Your task to perform on an android device: turn on improve location accuracy Image 0: 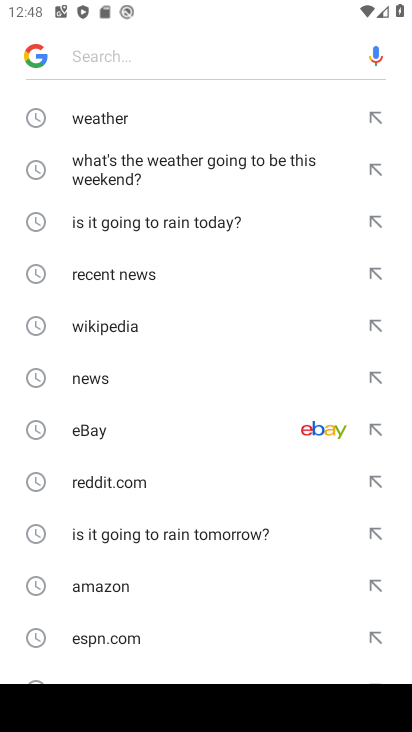
Step 0: press home button
Your task to perform on an android device: turn on improve location accuracy Image 1: 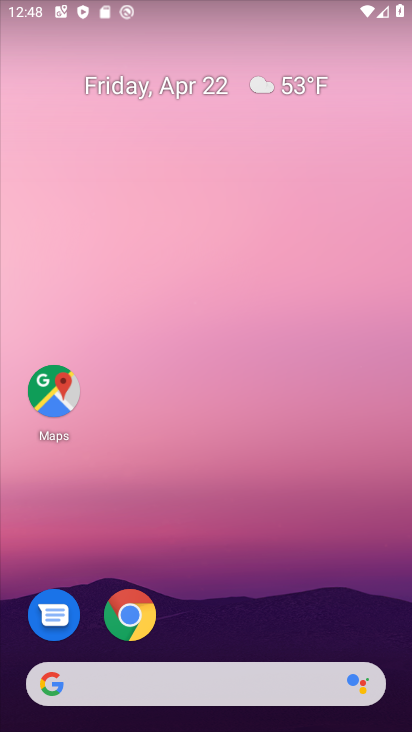
Step 1: drag from (349, 551) to (181, 7)
Your task to perform on an android device: turn on improve location accuracy Image 2: 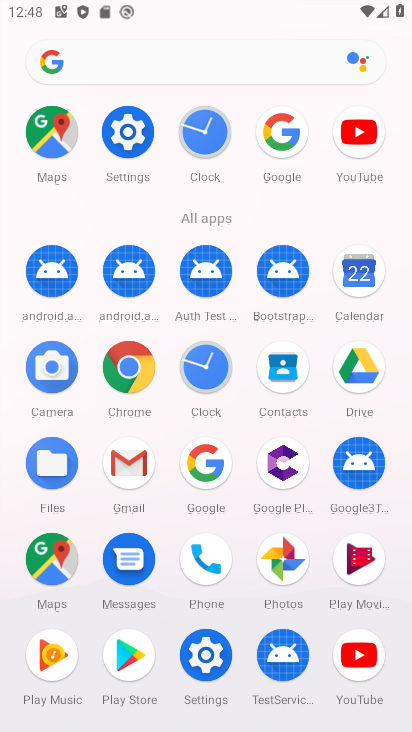
Step 2: click (120, 137)
Your task to perform on an android device: turn on improve location accuracy Image 3: 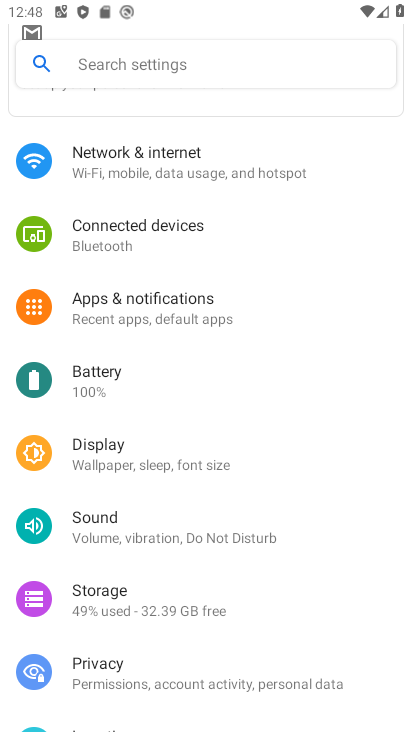
Step 3: drag from (260, 611) to (227, 223)
Your task to perform on an android device: turn on improve location accuracy Image 4: 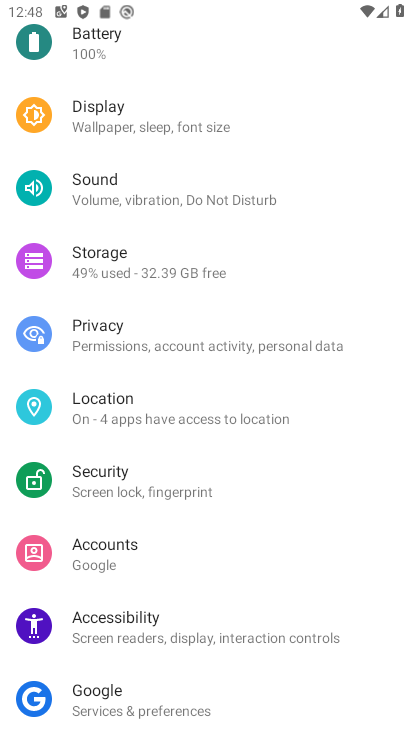
Step 4: click (111, 417)
Your task to perform on an android device: turn on improve location accuracy Image 5: 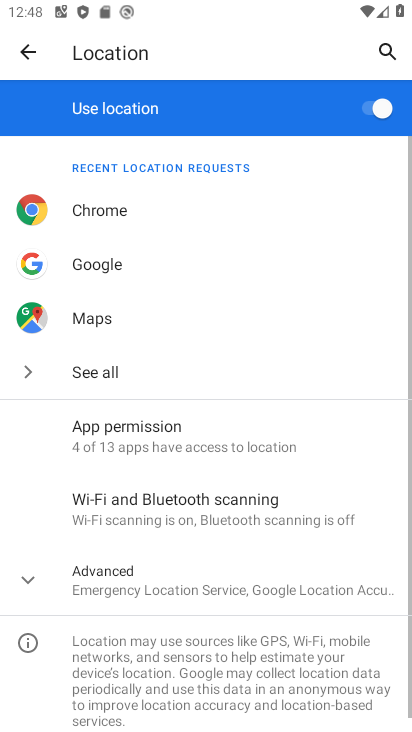
Step 5: click (30, 585)
Your task to perform on an android device: turn on improve location accuracy Image 6: 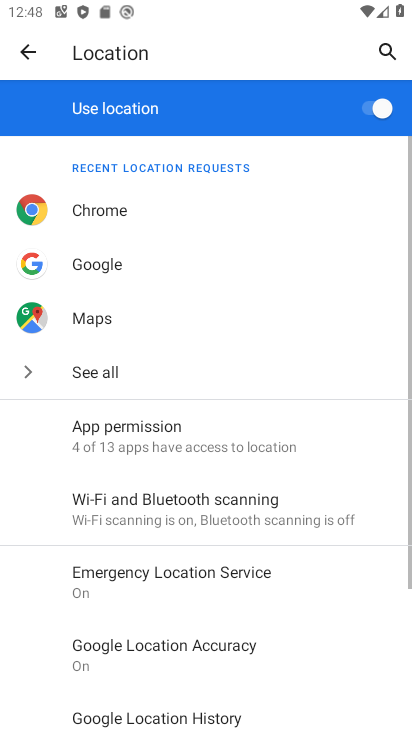
Step 6: drag from (179, 602) to (137, 328)
Your task to perform on an android device: turn on improve location accuracy Image 7: 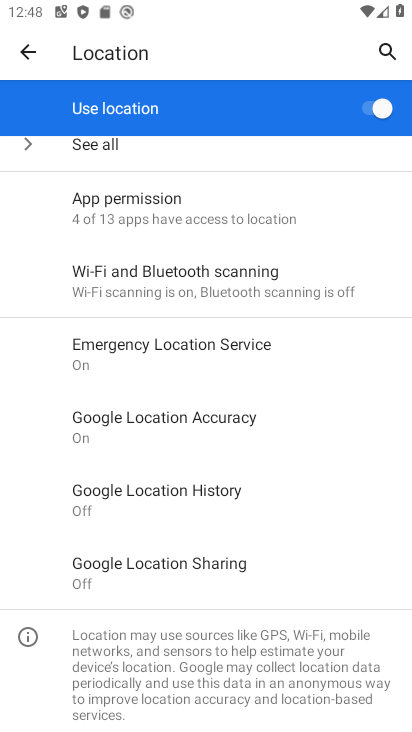
Step 7: click (127, 426)
Your task to perform on an android device: turn on improve location accuracy Image 8: 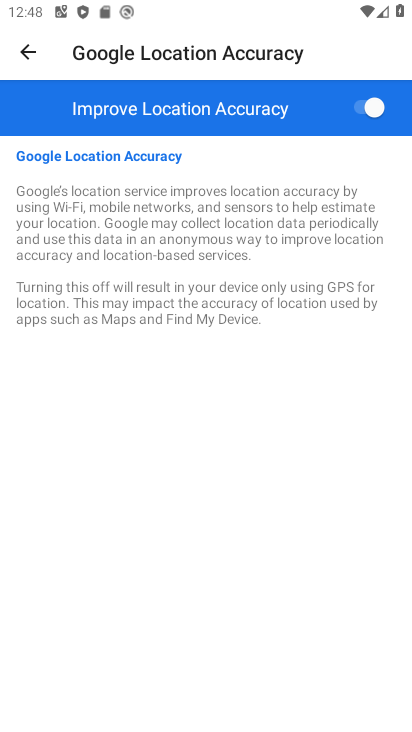
Step 8: task complete